Your task to perform on an android device: turn on translation in the chrome app Image 0: 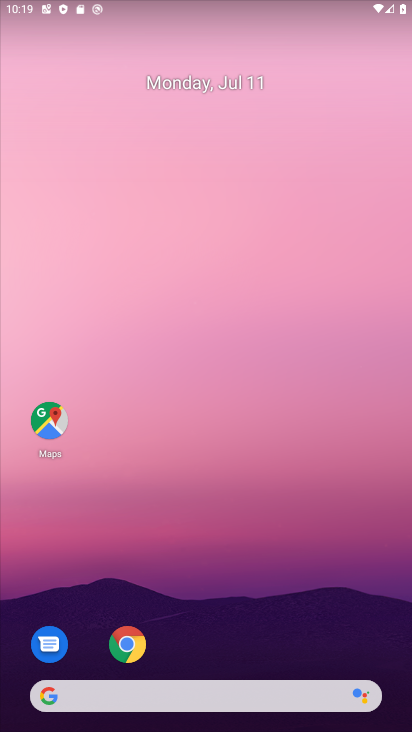
Step 0: press home button
Your task to perform on an android device: turn on translation in the chrome app Image 1: 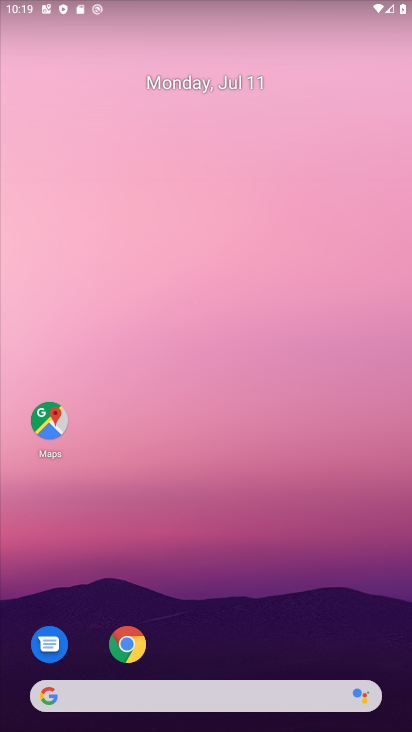
Step 1: click (125, 635)
Your task to perform on an android device: turn on translation in the chrome app Image 2: 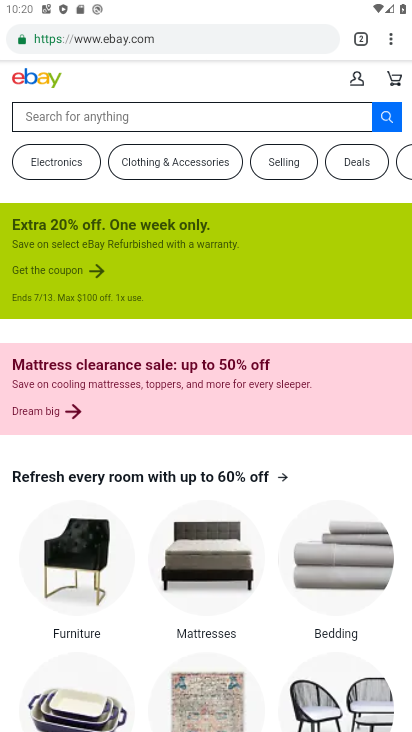
Step 2: click (392, 43)
Your task to perform on an android device: turn on translation in the chrome app Image 3: 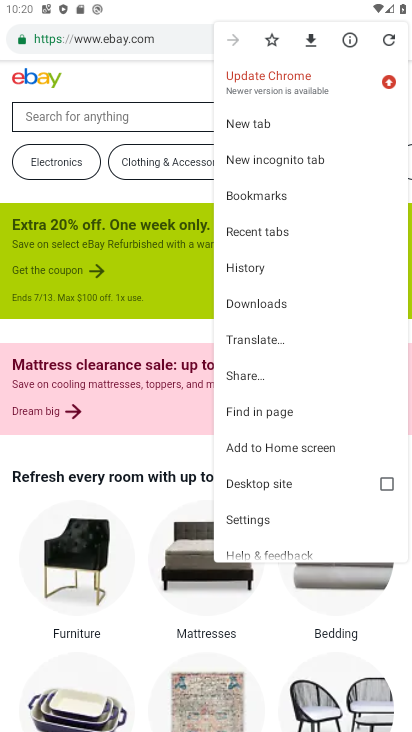
Step 3: click (277, 518)
Your task to perform on an android device: turn on translation in the chrome app Image 4: 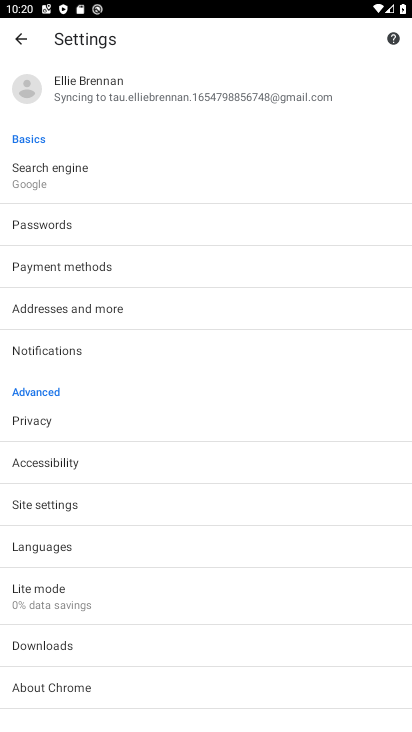
Step 4: click (95, 541)
Your task to perform on an android device: turn on translation in the chrome app Image 5: 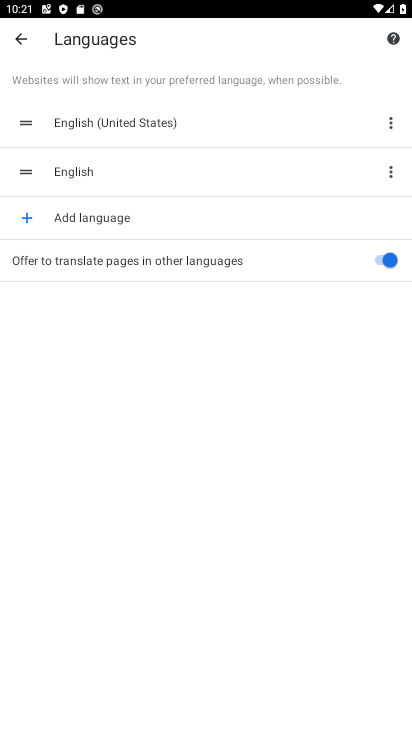
Step 5: task complete